Your task to perform on an android device: check battery use Image 0: 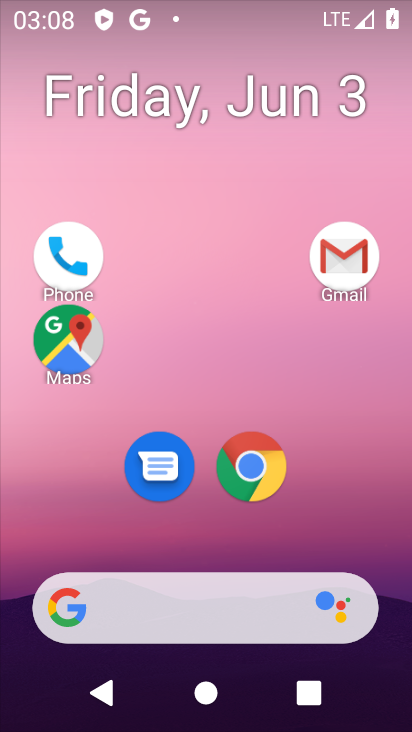
Step 0: drag from (204, 542) to (213, 188)
Your task to perform on an android device: check battery use Image 1: 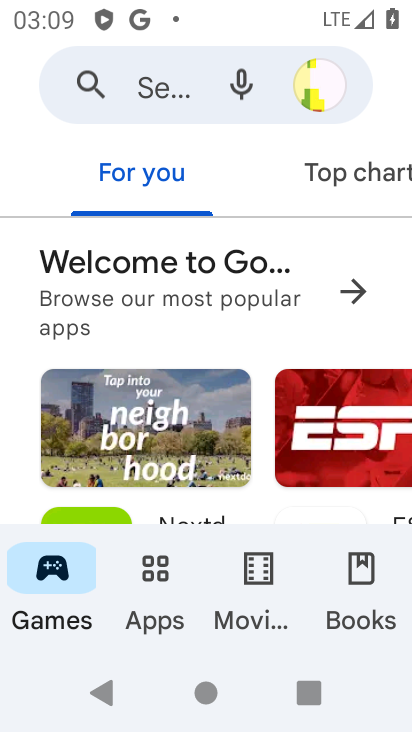
Step 1: press home button
Your task to perform on an android device: check battery use Image 2: 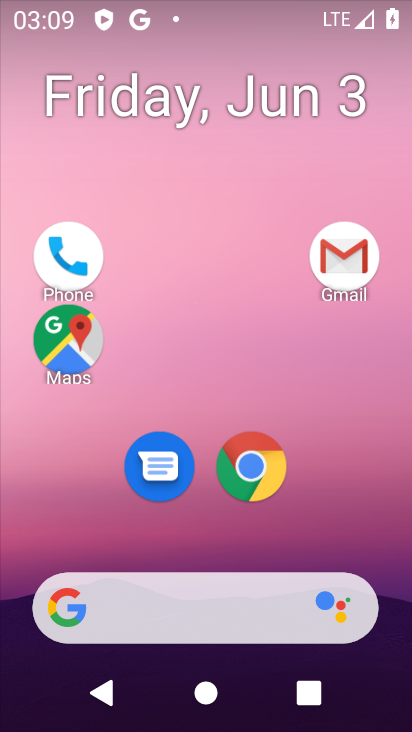
Step 2: drag from (194, 545) to (175, 3)
Your task to perform on an android device: check battery use Image 3: 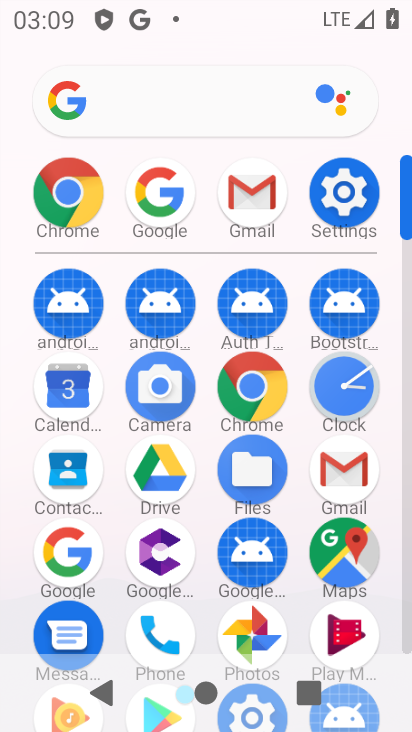
Step 3: click (339, 179)
Your task to perform on an android device: check battery use Image 4: 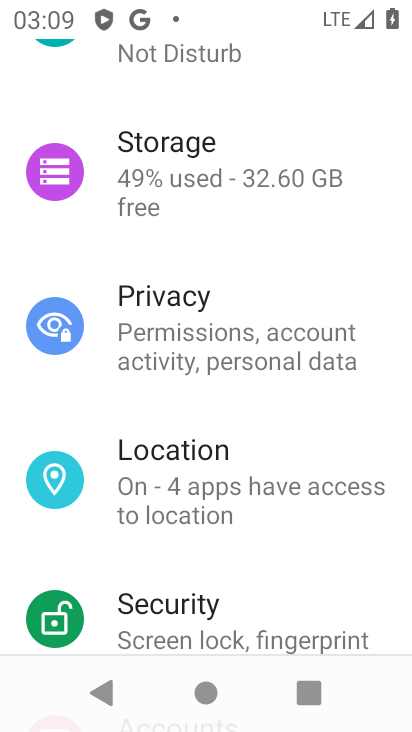
Step 4: drag from (199, 214) to (150, 611)
Your task to perform on an android device: check battery use Image 5: 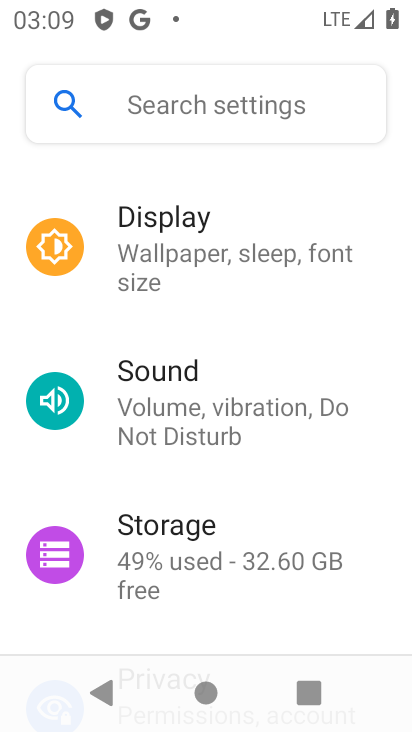
Step 5: drag from (234, 595) to (234, 407)
Your task to perform on an android device: check battery use Image 6: 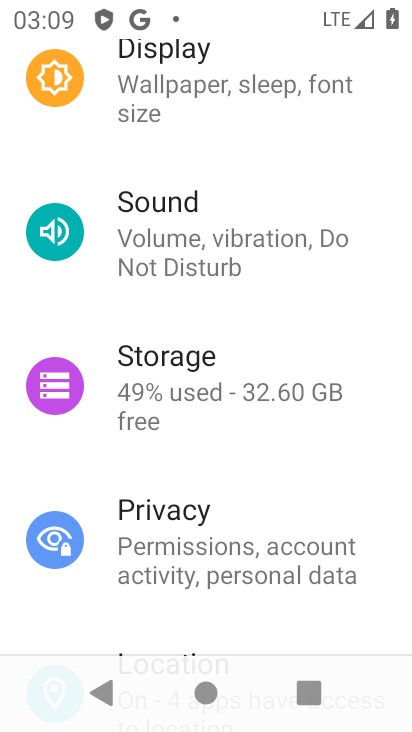
Step 6: drag from (224, 588) to (227, 363)
Your task to perform on an android device: check battery use Image 7: 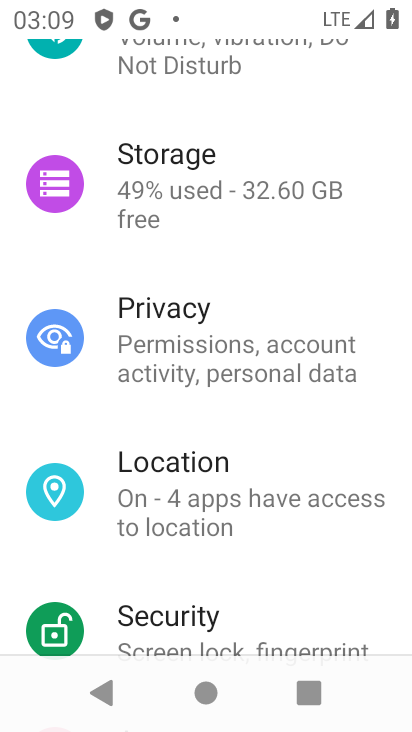
Step 7: drag from (206, 587) to (230, 299)
Your task to perform on an android device: check battery use Image 8: 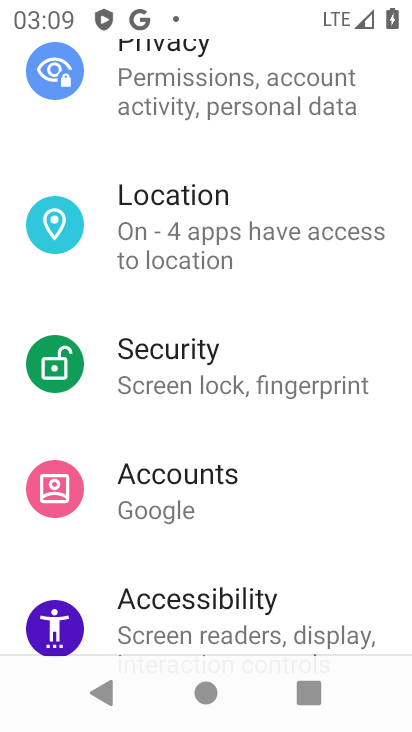
Step 8: drag from (230, 518) to (269, 277)
Your task to perform on an android device: check battery use Image 9: 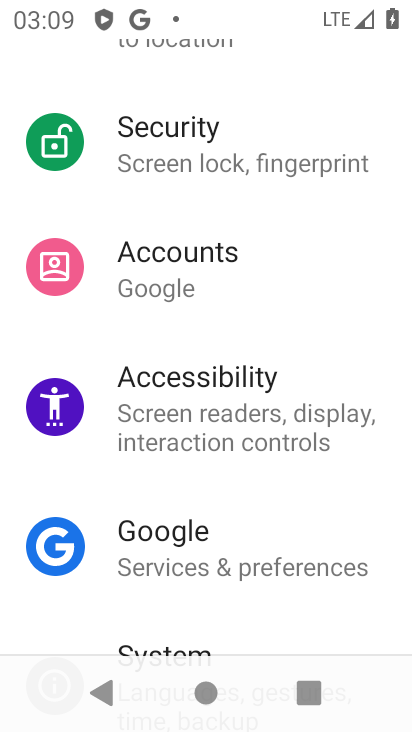
Step 9: drag from (225, 517) to (250, 288)
Your task to perform on an android device: check battery use Image 10: 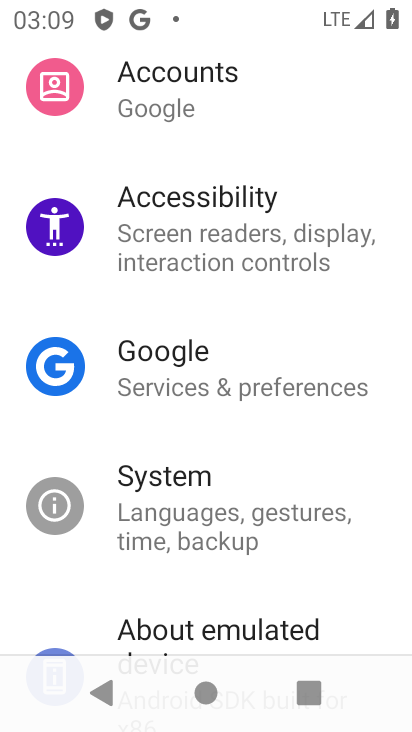
Step 10: drag from (215, 528) to (245, 332)
Your task to perform on an android device: check battery use Image 11: 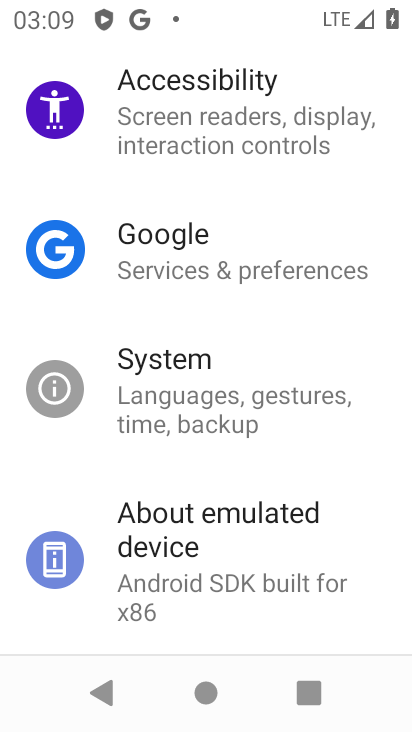
Step 11: drag from (252, 190) to (216, 361)
Your task to perform on an android device: check battery use Image 12: 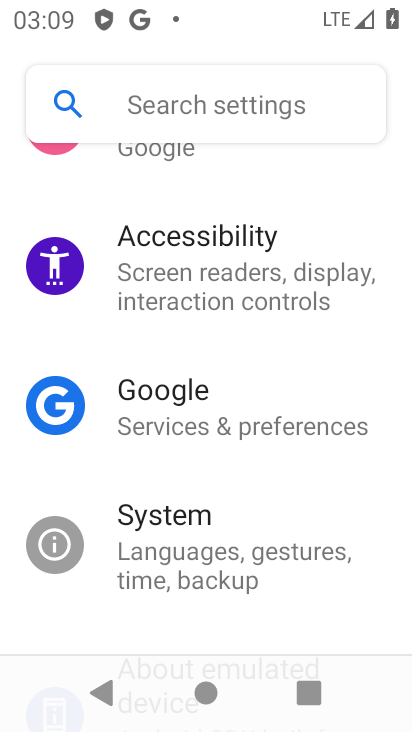
Step 12: drag from (243, 249) to (202, 433)
Your task to perform on an android device: check battery use Image 13: 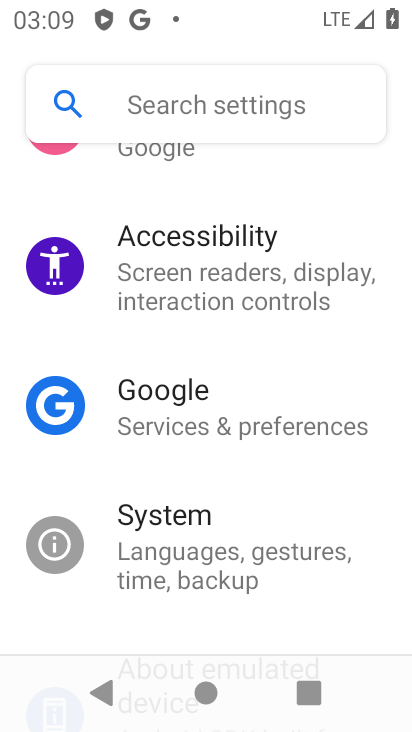
Step 13: drag from (255, 200) to (237, 364)
Your task to perform on an android device: check battery use Image 14: 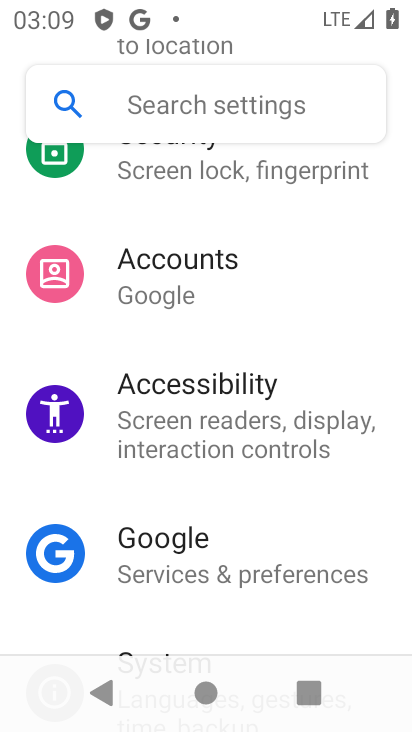
Step 14: drag from (266, 197) to (255, 314)
Your task to perform on an android device: check battery use Image 15: 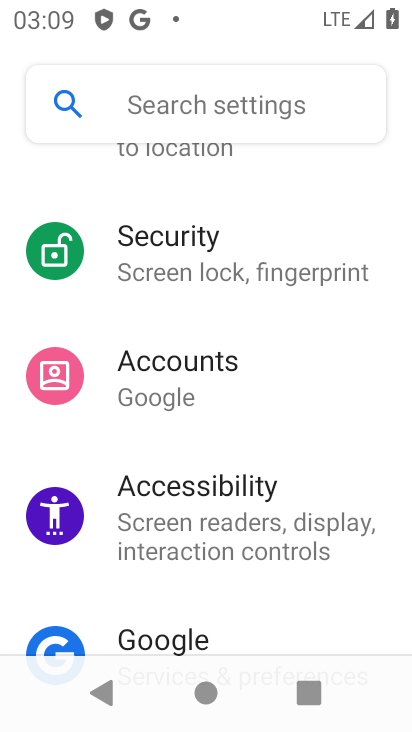
Step 15: drag from (275, 230) to (242, 331)
Your task to perform on an android device: check battery use Image 16: 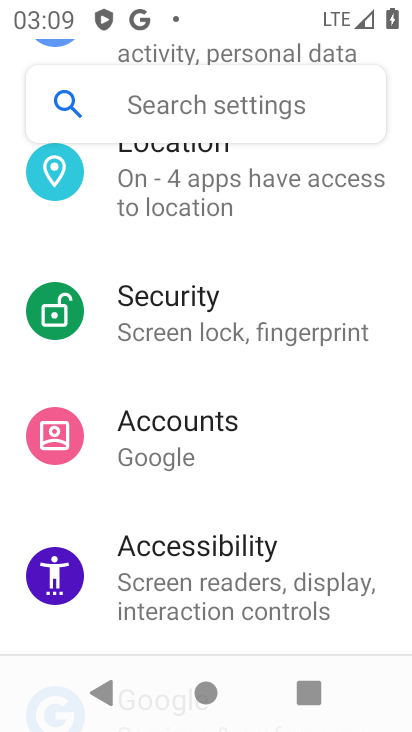
Step 16: drag from (247, 159) to (213, 355)
Your task to perform on an android device: check battery use Image 17: 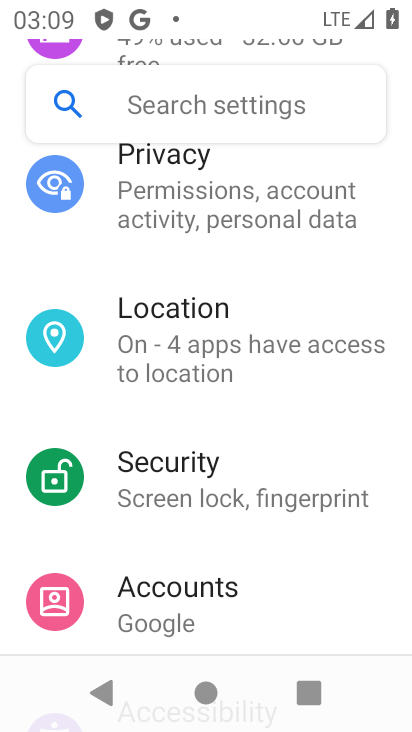
Step 17: drag from (191, 234) to (189, 531)
Your task to perform on an android device: check battery use Image 18: 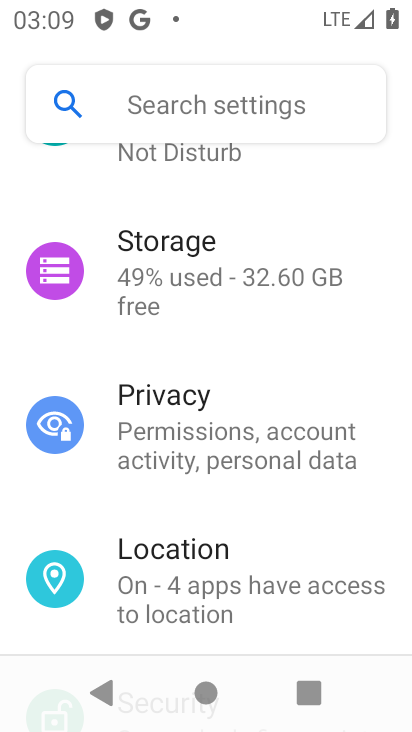
Step 18: drag from (260, 302) to (146, 524)
Your task to perform on an android device: check battery use Image 19: 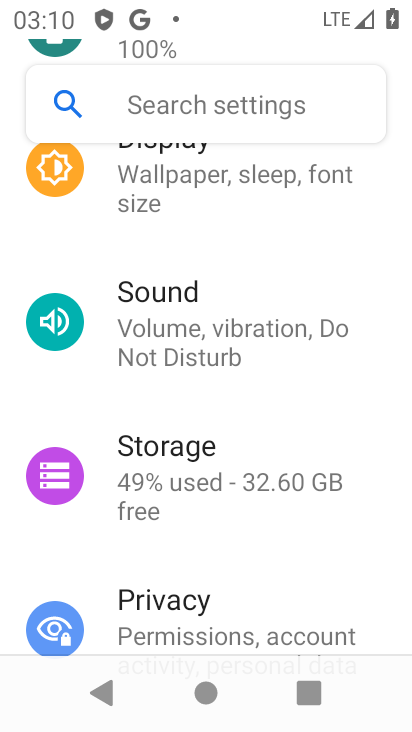
Step 19: drag from (173, 309) to (213, 616)
Your task to perform on an android device: check battery use Image 20: 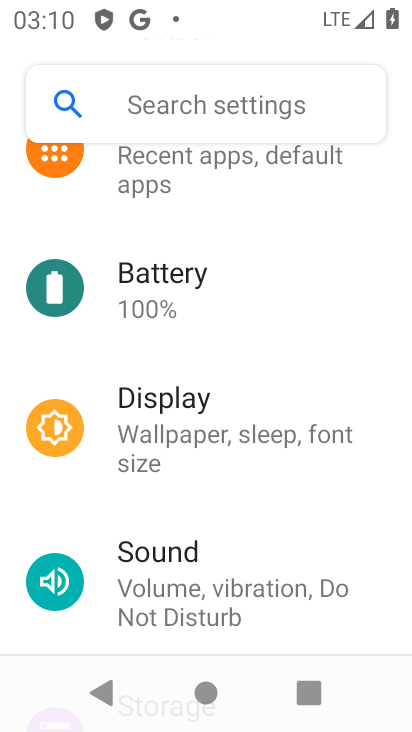
Step 20: click (197, 302)
Your task to perform on an android device: check battery use Image 21: 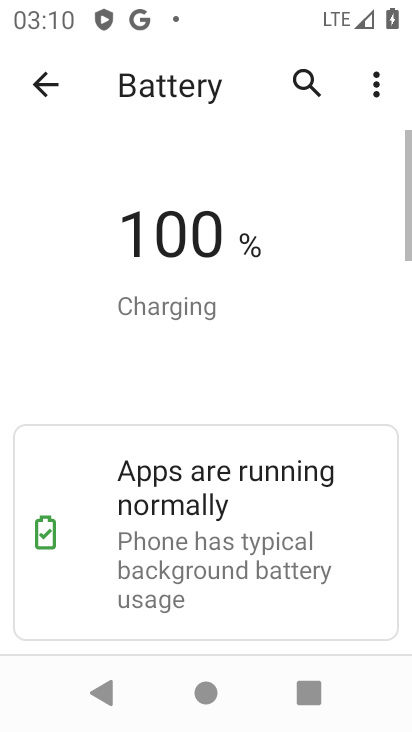
Step 21: task complete